Your task to perform on an android device: Go to eBay Image 0: 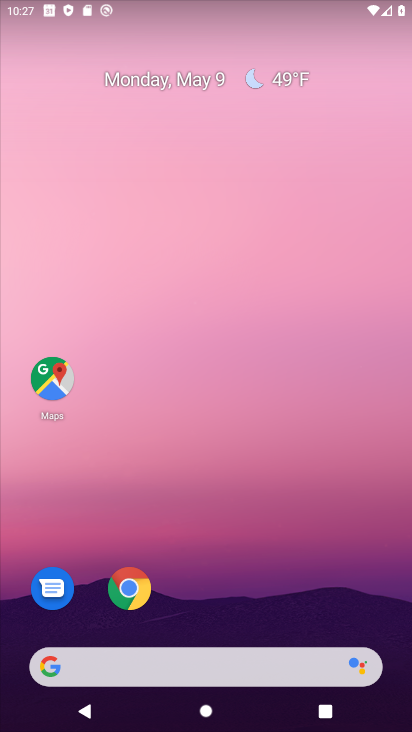
Step 0: drag from (228, 726) to (215, 93)
Your task to perform on an android device: Go to eBay Image 1: 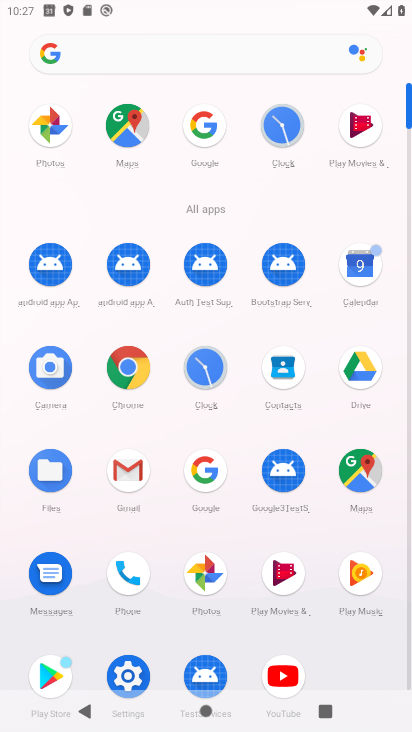
Step 1: click (132, 371)
Your task to perform on an android device: Go to eBay Image 2: 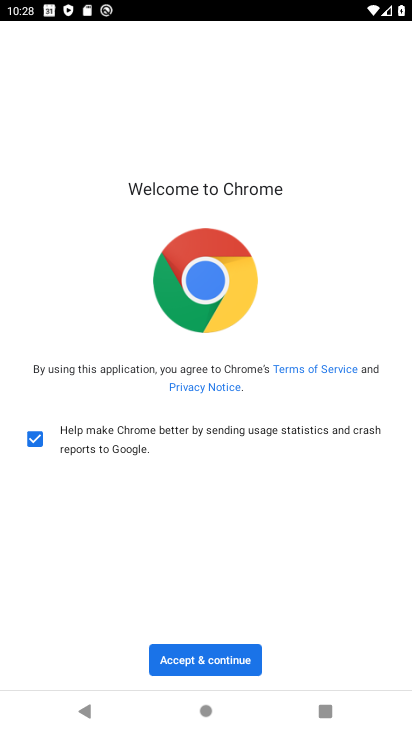
Step 2: click (201, 663)
Your task to perform on an android device: Go to eBay Image 3: 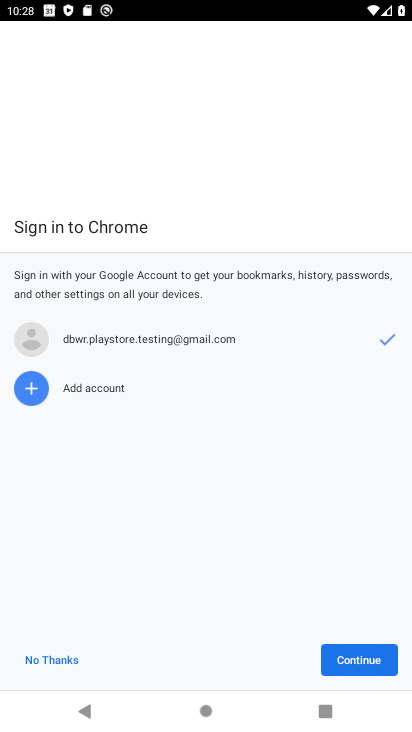
Step 3: click (367, 661)
Your task to perform on an android device: Go to eBay Image 4: 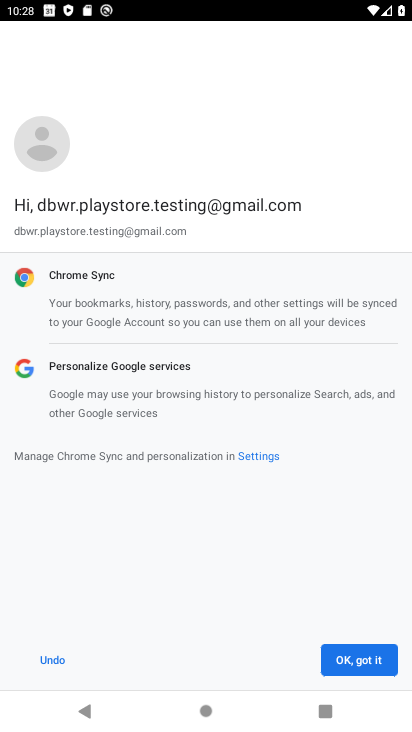
Step 4: click (372, 660)
Your task to perform on an android device: Go to eBay Image 5: 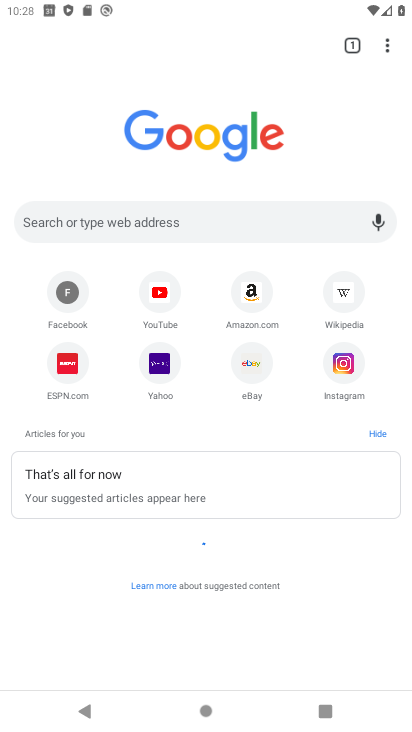
Step 5: click (197, 215)
Your task to perform on an android device: Go to eBay Image 6: 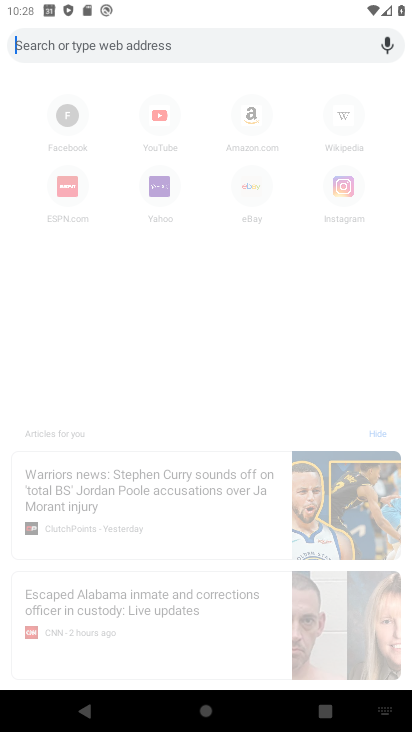
Step 6: type "eBay"
Your task to perform on an android device: Go to eBay Image 7: 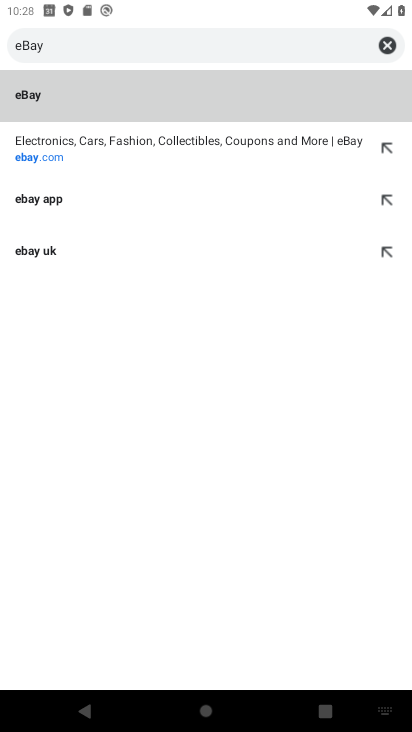
Step 7: click (67, 91)
Your task to perform on an android device: Go to eBay Image 8: 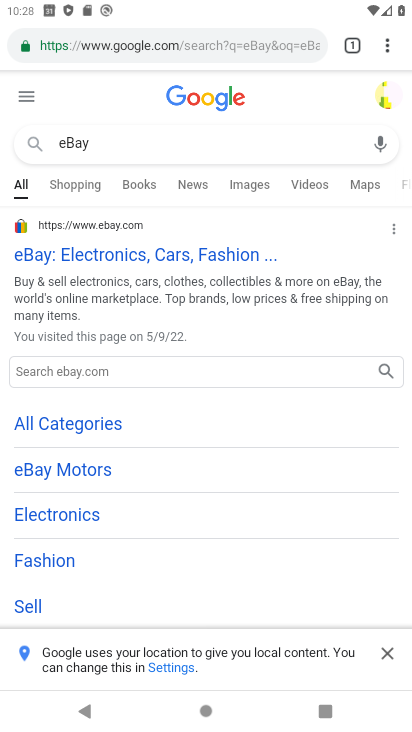
Step 8: click (186, 254)
Your task to perform on an android device: Go to eBay Image 9: 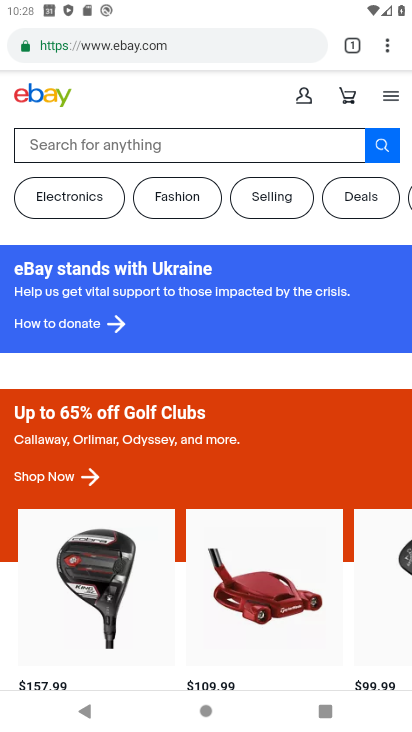
Step 9: task complete